Your task to perform on an android device: Go to network settings Image 0: 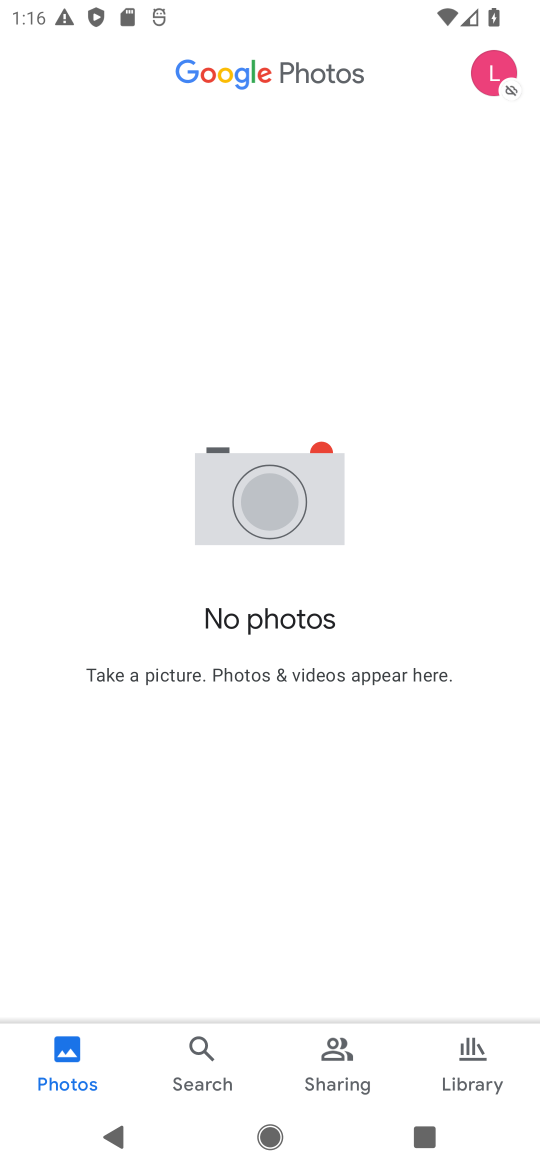
Step 0: press back button
Your task to perform on an android device: Go to network settings Image 1: 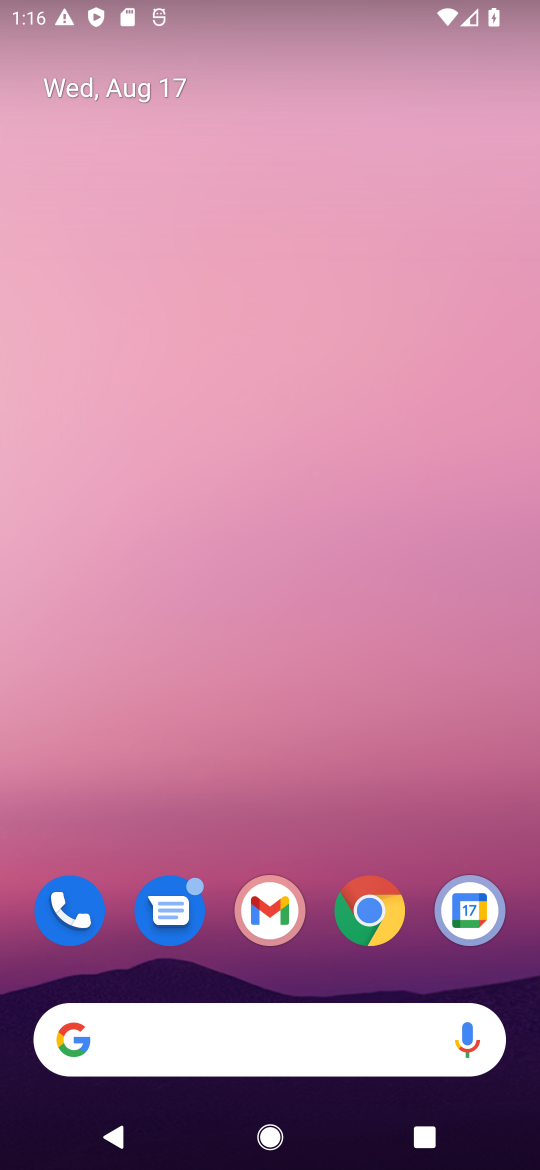
Step 1: drag from (239, 997) to (267, 29)
Your task to perform on an android device: Go to network settings Image 2: 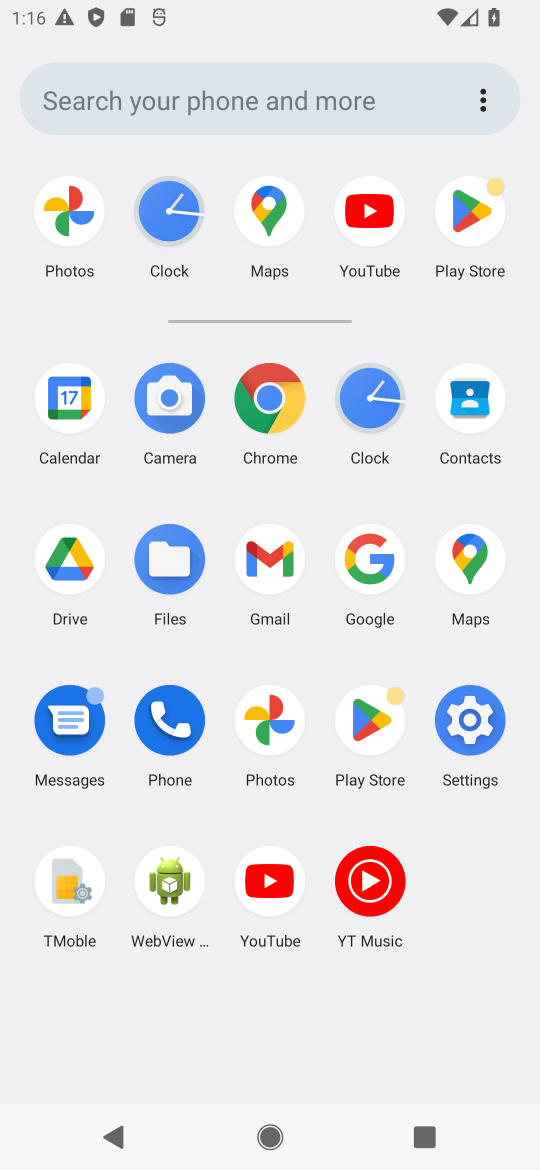
Step 2: click (475, 730)
Your task to perform on an android device: Go to network settings Image 3: 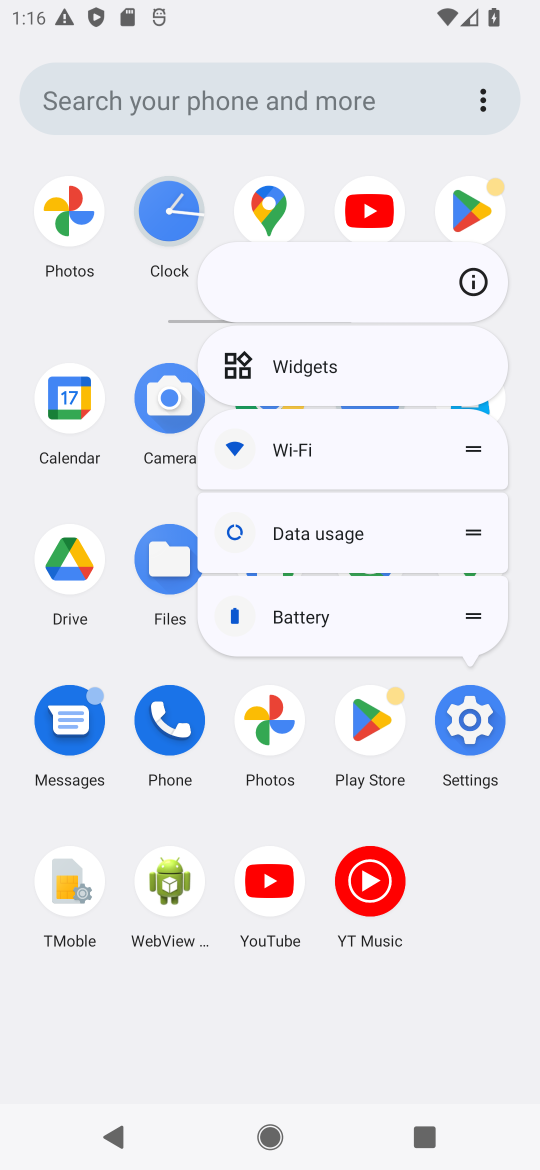
Step 3: click (472, 728)
Your task to perform on an android device: Go to network settings Image 4: 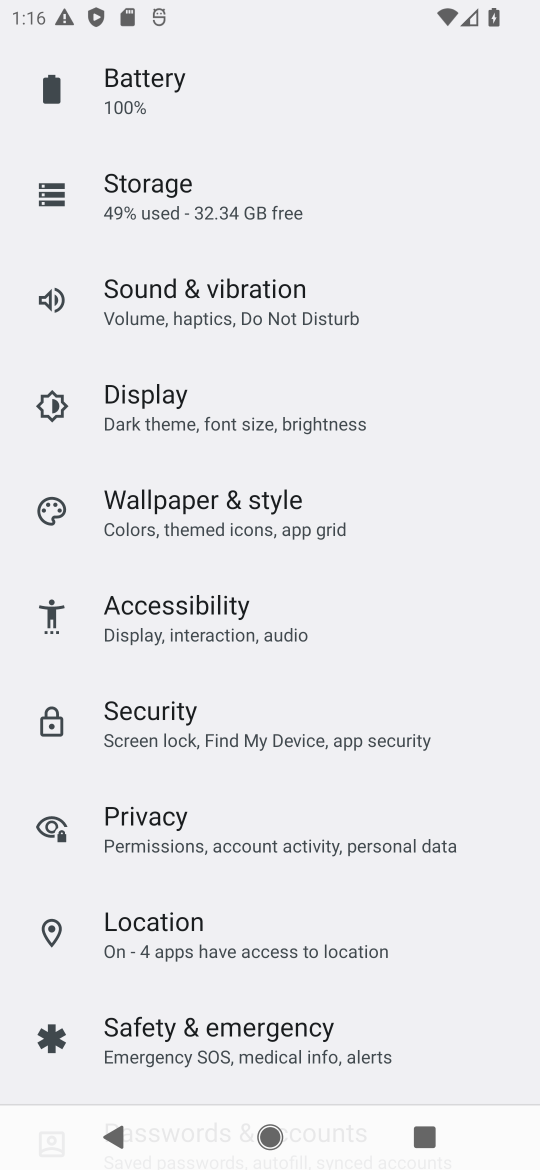
Step 4: drag from (329, 221) to (316, 1151)
Your task to perform on an android device: Go to network settings Image 5: 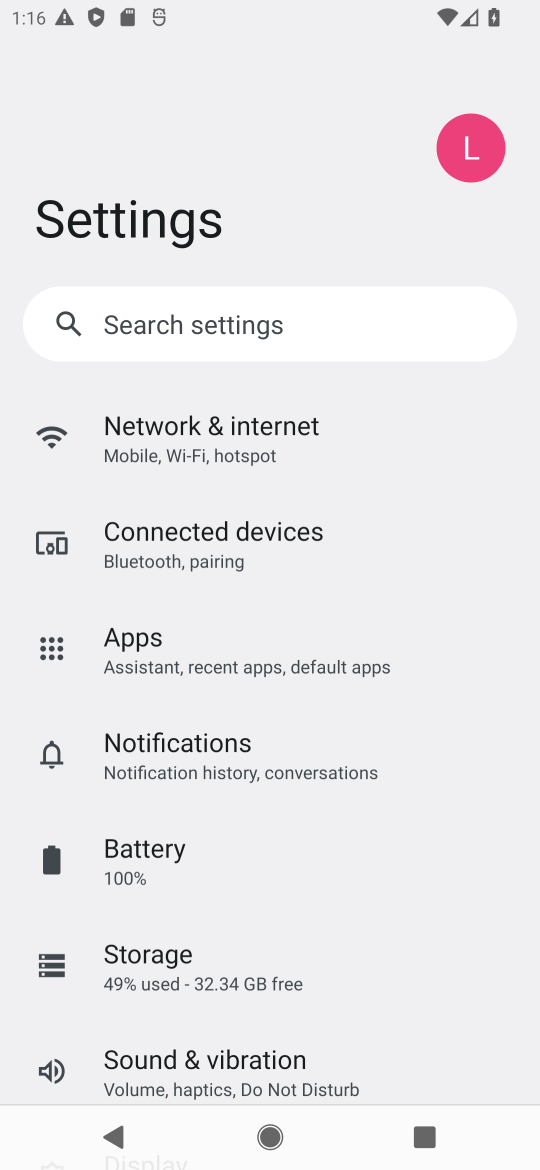
Step 5: click (234, 442)
Your task to perform on an android device: Go to network settings Image 6: 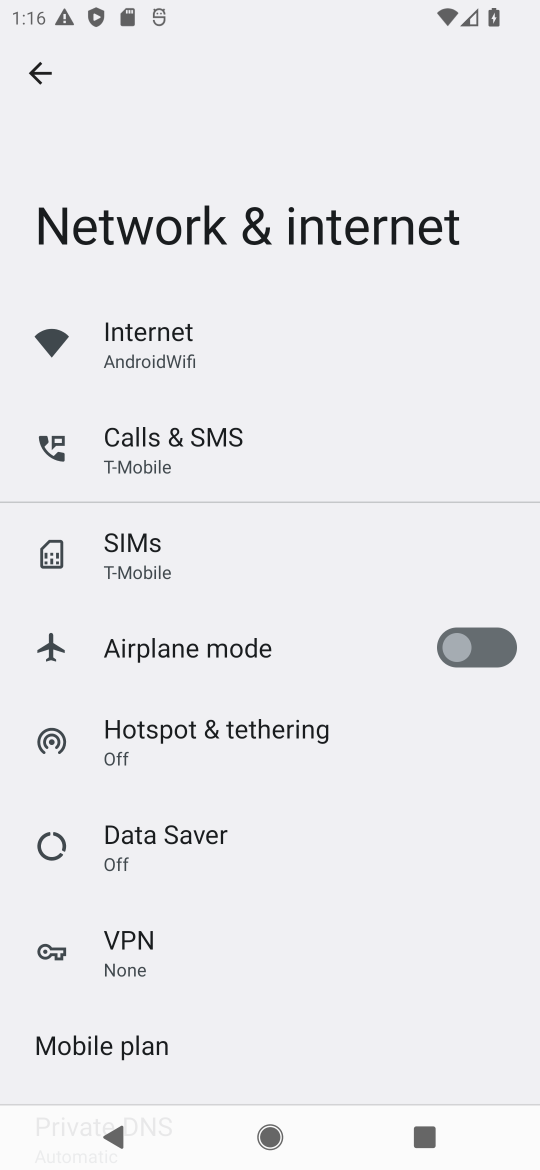
Step 6: task complete